Your task to perform on an android device: open app "AliExpress" (install if not already installed), go to login, and select forgot password Image 0: 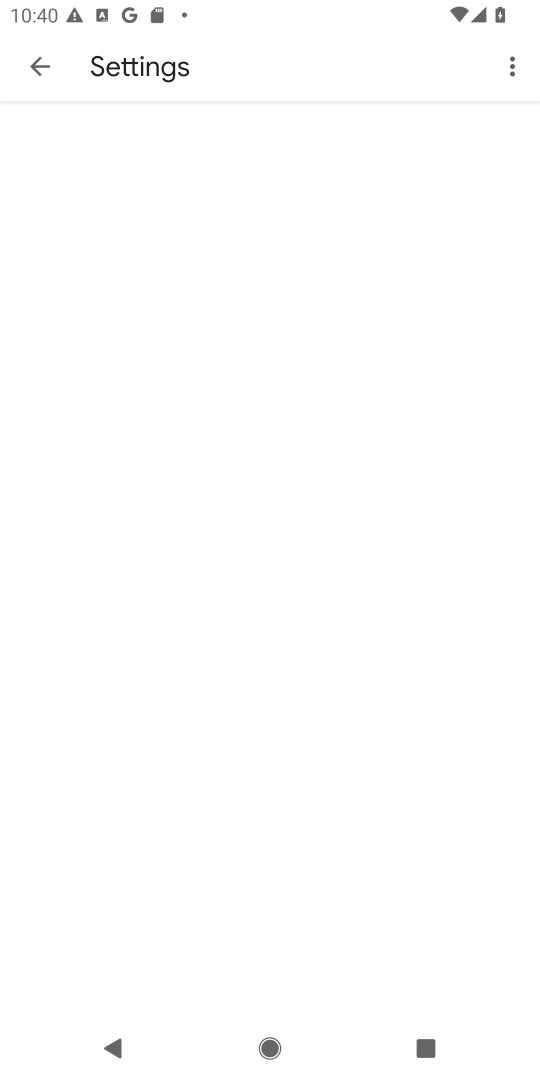
Step 0: press home button
Your task to perform on an android device: open app "AliExpress" (install if not already installed), go to login, and select forgot password Image 1: 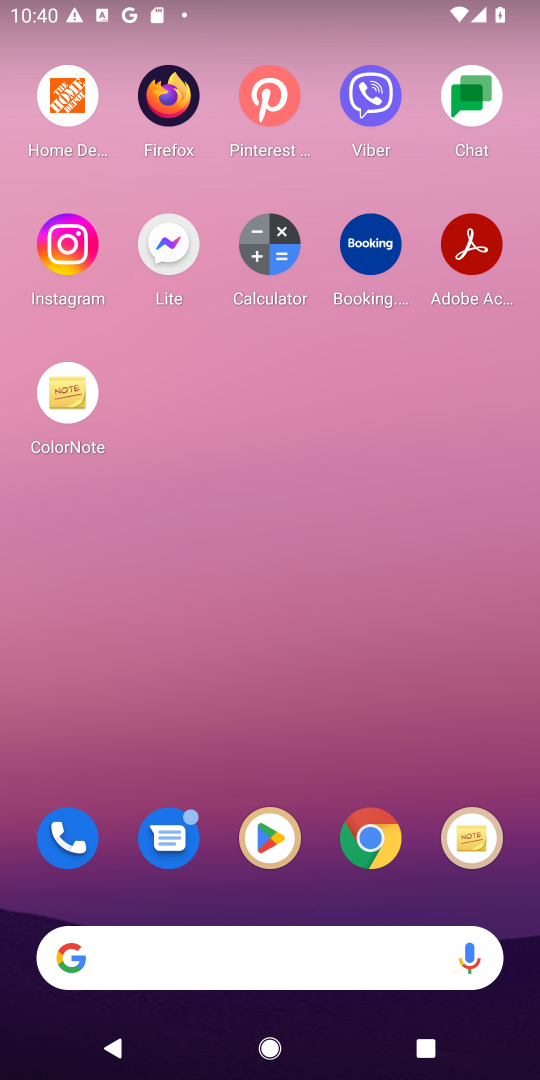
Step 1: click (251, 842)
Your task to perform on an android device: open app "AliExpress" (install if not already installed), go to login, and select forgot password Image 2: 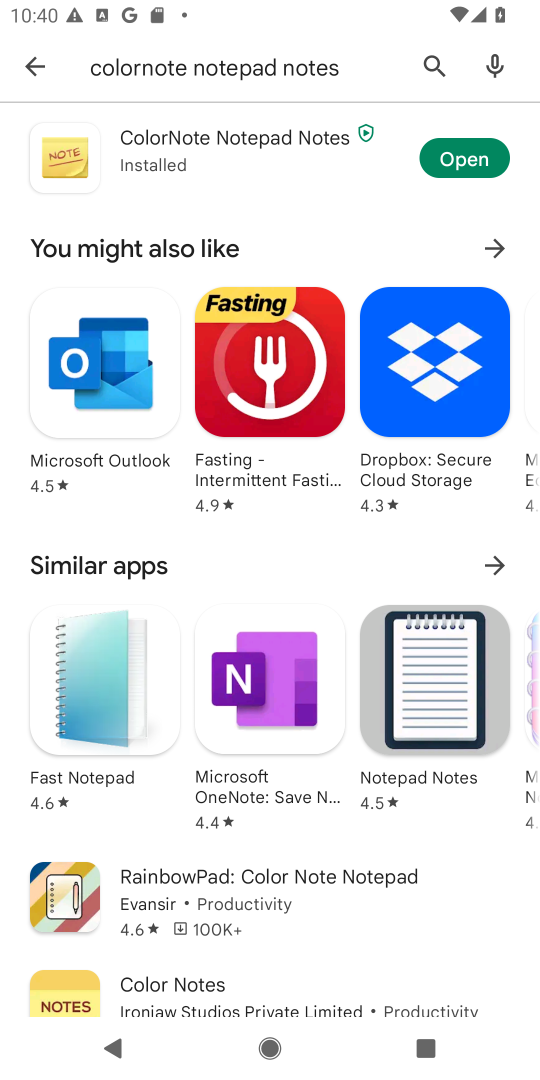
Step 2: click (434, 65)
Your task to perform on an android device: open app "AliExpress" (install if not already installed), go to login, and select forgot password Image 3: 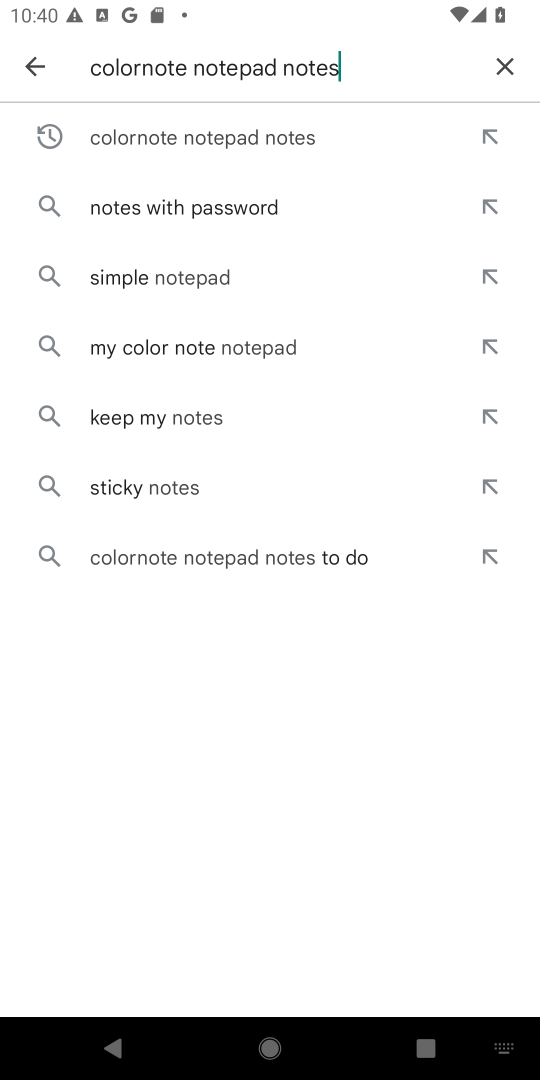
Step 3: click (505, 76)
Your task to perform on an android device: open app "AliExpress" (install if not already installed), go to login, and select forgot password Image 4: 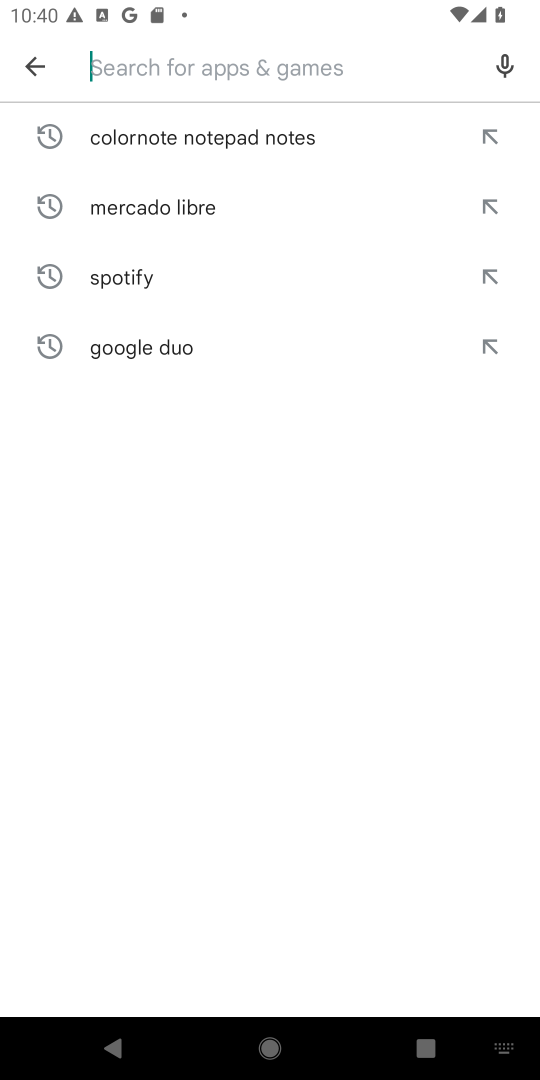
Step 4: type "AliExpress"
Your task to perform on an android device: open app "AliExpress" (install if not already installed), go to login, and select forgot password Image 5: 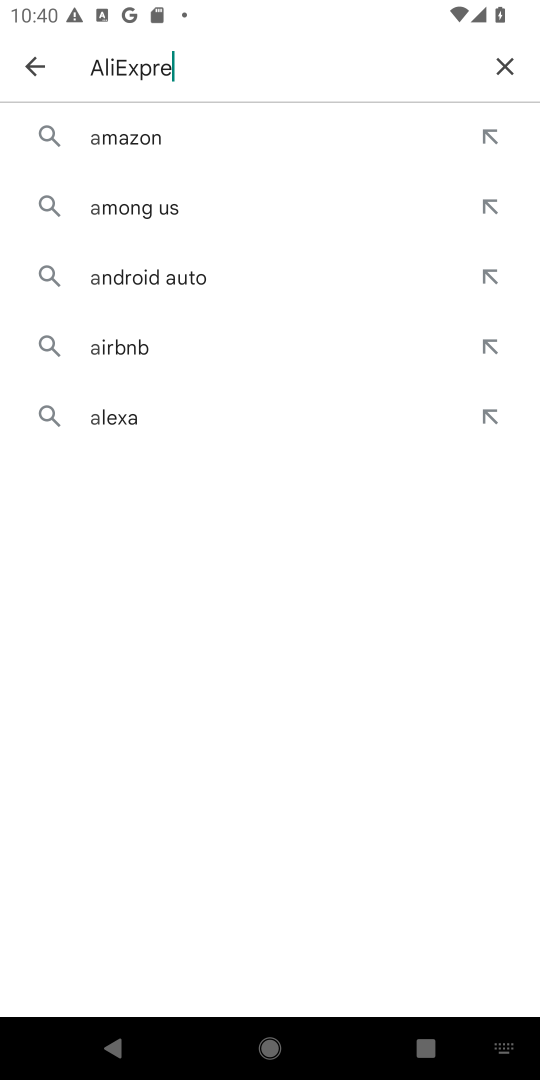
Step 5: type ""
Your task to perform on an android device: open app "AliExpress" (install if not already installed), go to login, and select forgot password Image 6: 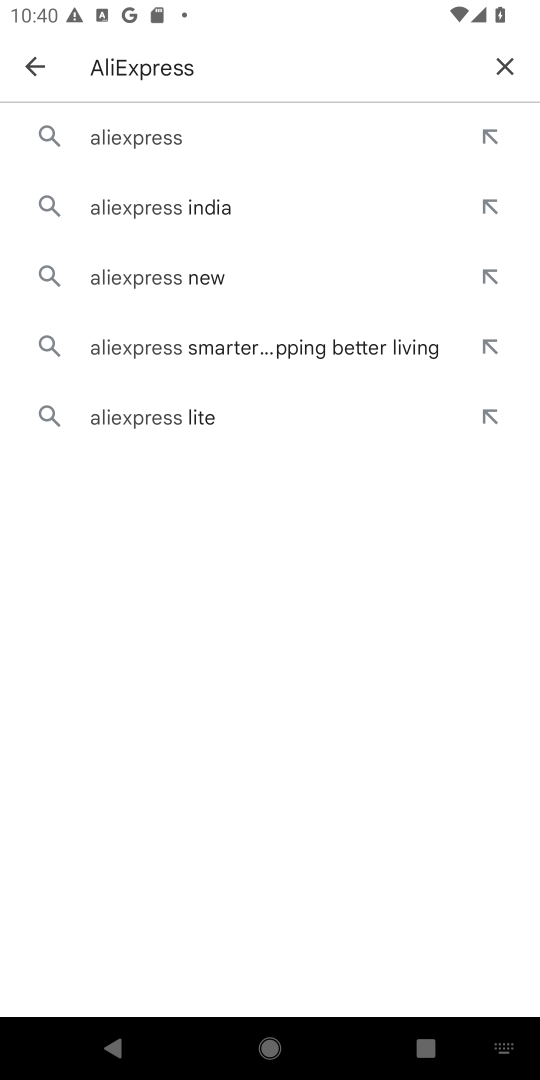
Step 6: click (183, 135)
Your task to perform on an android device: open app "AliExpress" (install if not already installed), go to login, and select forgot password Image 7: 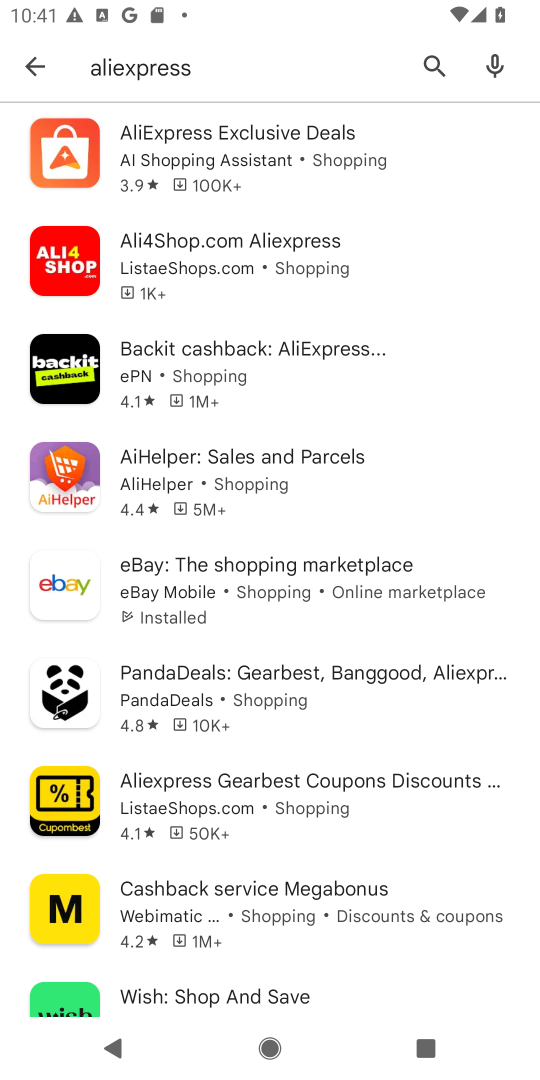
Step 7: click (183, 135)
Your task to perform on an android device: open app "AliExpress" (install if not already installed), go to login, and select forgot password Image 8: 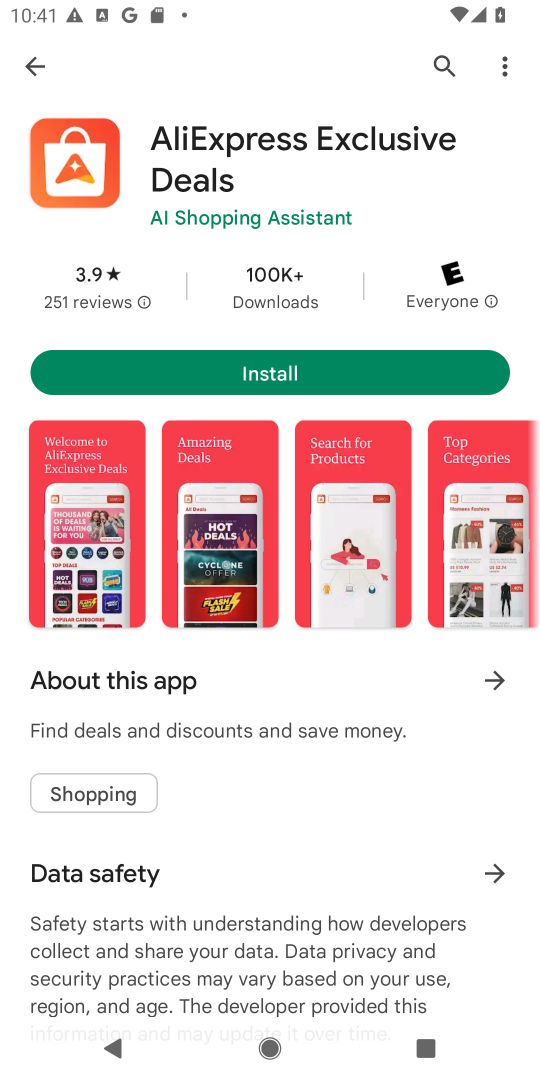
Step 8: click (307, 363)
Your task to perform on an android device: open app "AliExpress" (install if not already installed), go to login, and select forgot password Image 9: 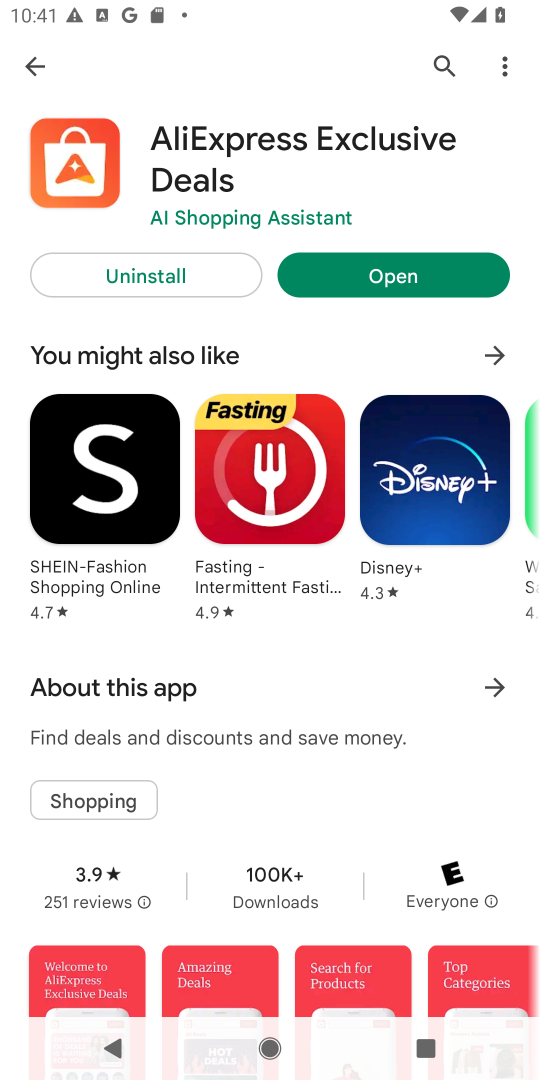
Step 9: click (384, 285)
Your task to perform on an android device: open app "AliExpress" (install if not already installed), go to login, and select forgot password Image 10: 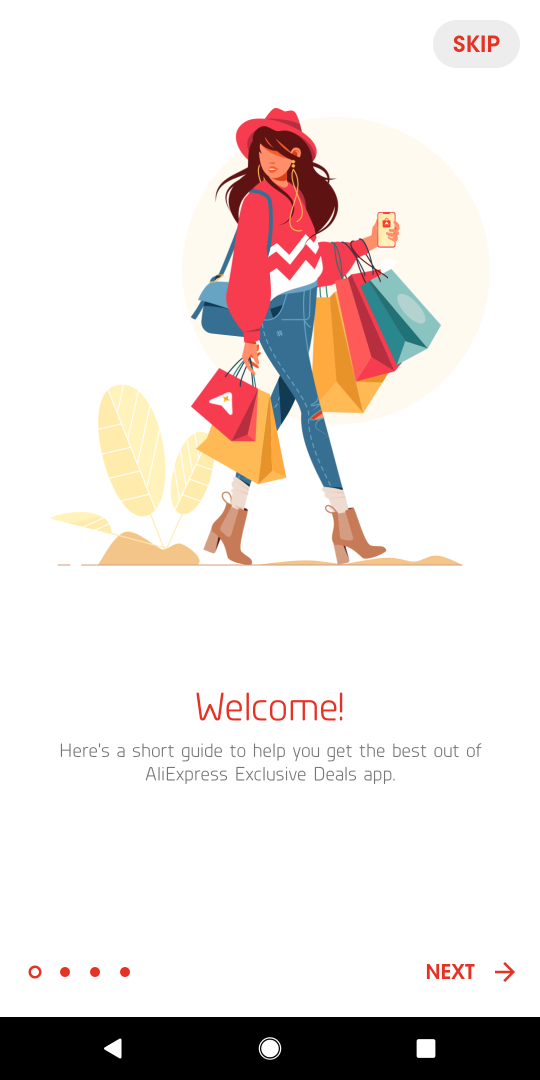
Step 10: task complete